Your task to perform on an android device: Search for pizza restaurants on Maps Image 0: 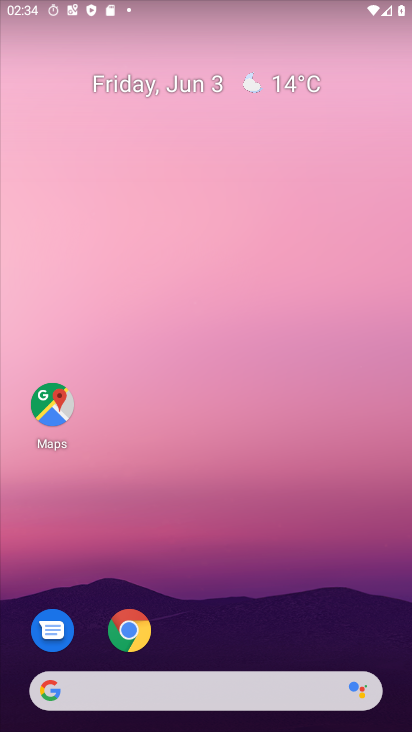
Step 0: click (41, 400)
Your task to perform on an android device: Search for pizza restaurants on Maps Image 1: 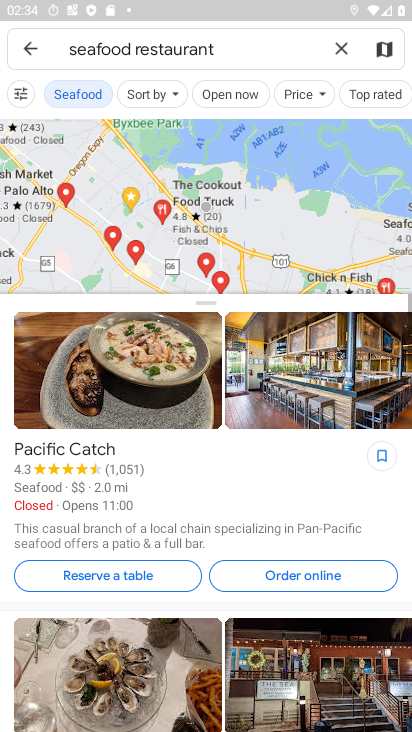
Step 1: click (341, 44)
Your task to perform on an android device: Search for pizza restaurants on Maps Image 2: 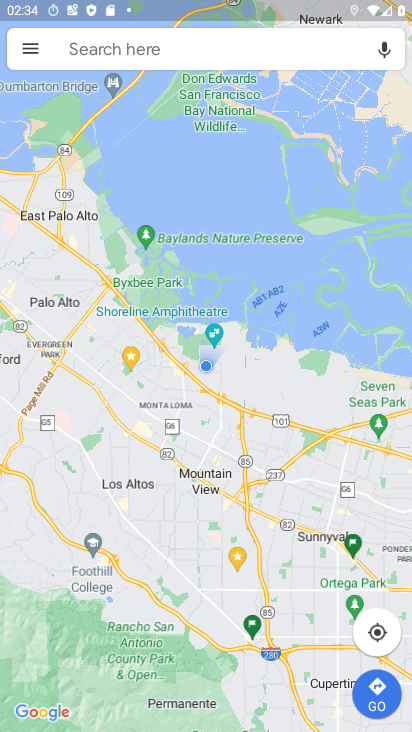
Step 2: click (94, 47)
Your task to perform on an android device: Search for pizza restaurants on Maps Image 3: 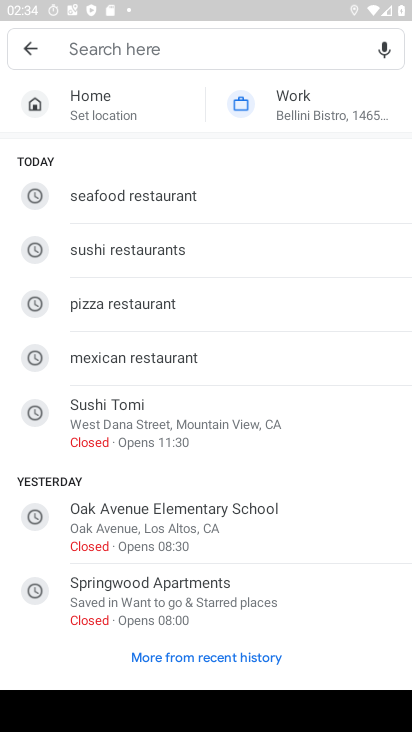
Step 3: type " pizza restaurants"
Your task to perform on an android device: Search for pizza restaurants on Maps Image 4: 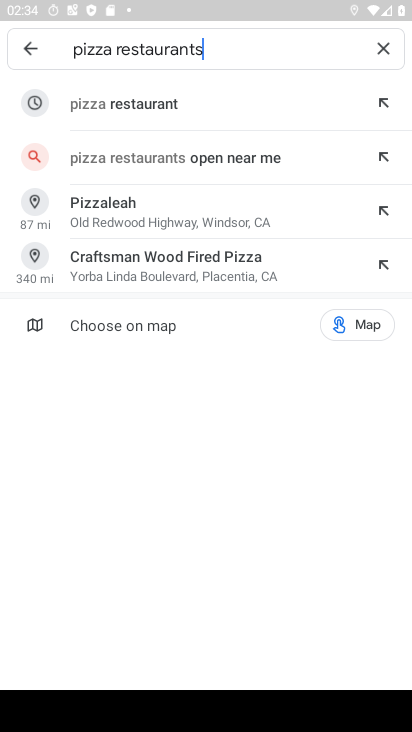
Step 4: click (142, 89)
Your task to perform on an android device: Search for pizza restaurants on Maps Image 5: 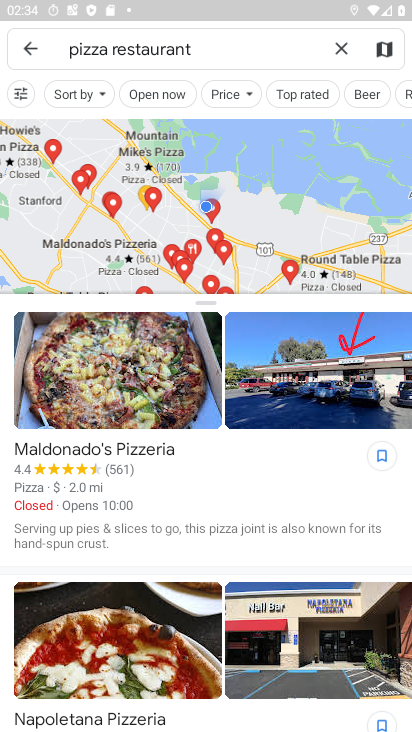
Step 5: task complete